Your task to perform on an android device: move an email to a new category in the gmail app Image 0: 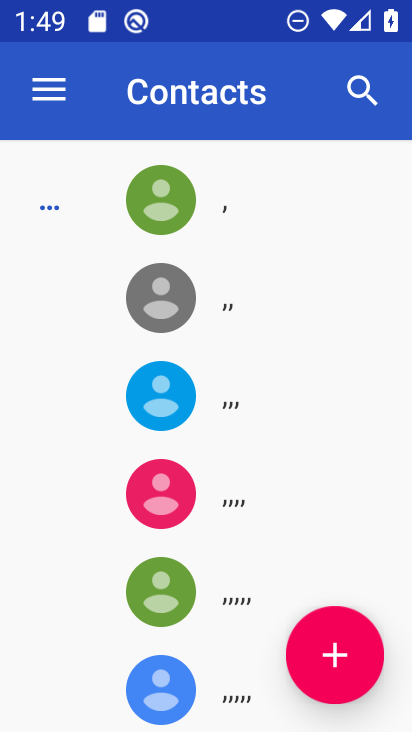
Step 0: press home button
Your task to perform on an android device: move an email to a new category in the gmail app Image 1: 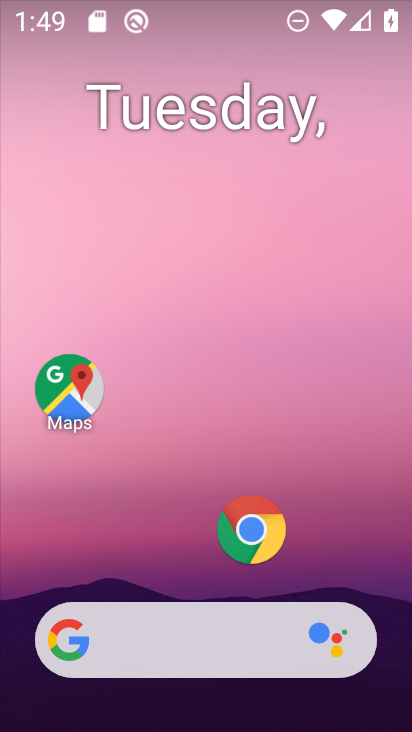
Step 1: drag from (246, 675) to (243, 233)
Your task to perform on an android device: move an email to a new category in the gmail app Image 2: 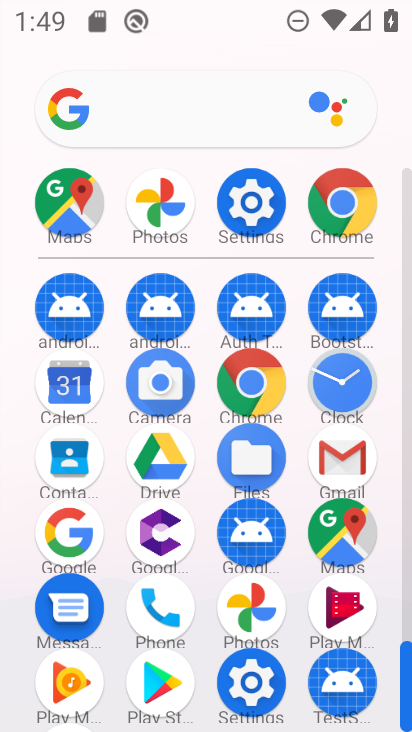
Step 2: click (325, 461)
Your task to perform on an android device: move an email to a new category in the gmail app Image 3: 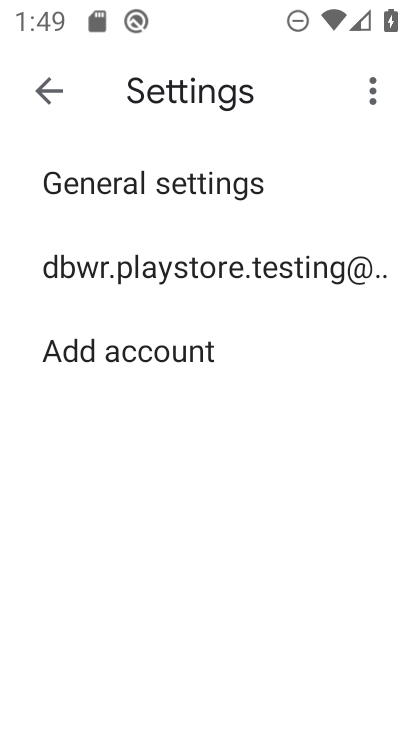
Step 3: click (176, 264)
Your task to perform on an android device: move an email to a new category in the gmail app Image 4: 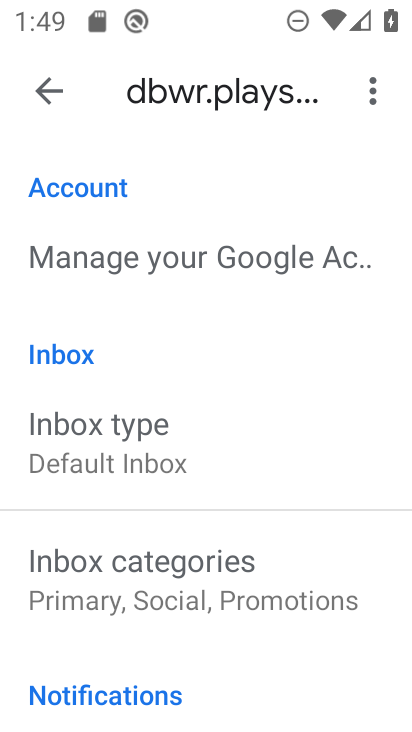
Step 4: click (87, 603)
Your task to perform on an android device: move an email to a new category in the gmail app Image 5: 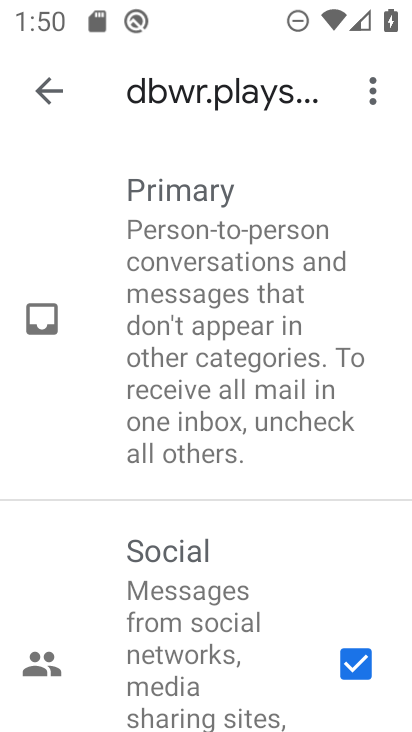
Step 5: task complete